Your task to perform on an android device: open a bookmark in the chrome app Image 0: 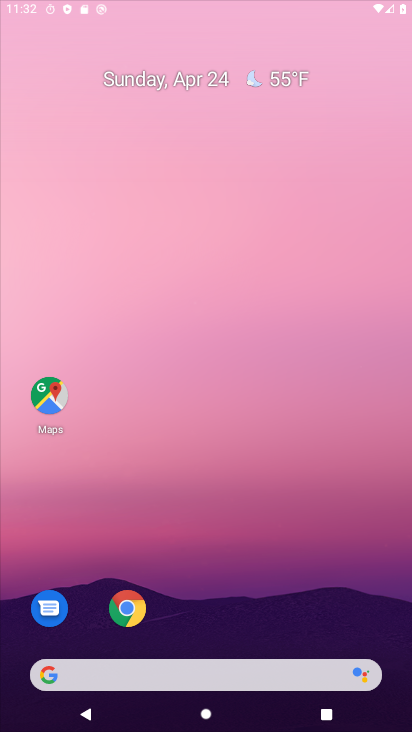
Step 0: click (246, 122)
Your task to perform on an android device: open a bookmark in the chrome app Image 1: 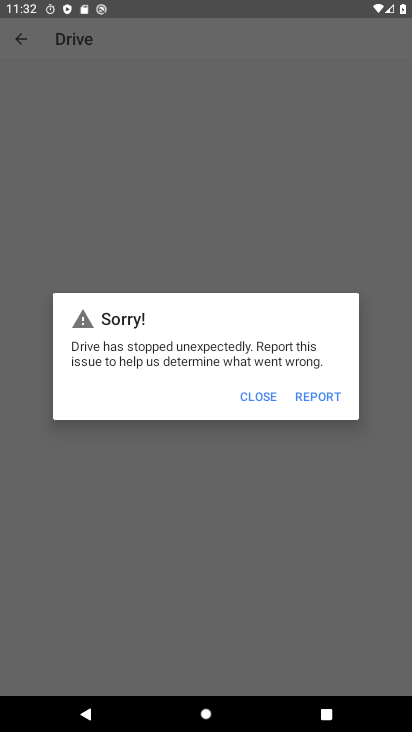
Step 1: press back button
Your task to perform on an android device: open a bookmark in the chrome app Image 2: 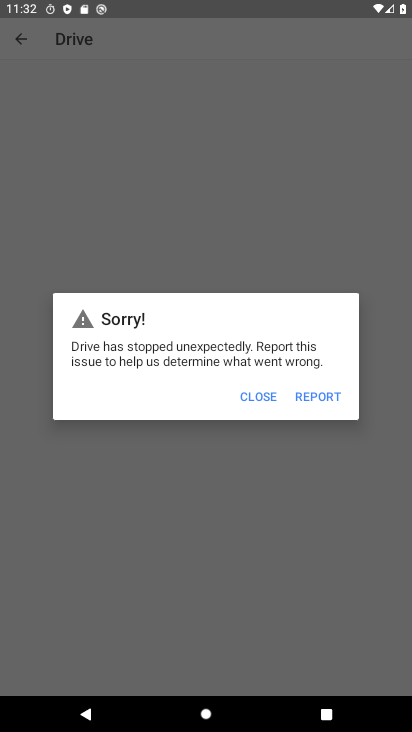
Step 2: click (261, 386)
Your task to perform on an android device: open a bookmark in the chrome app Image 3: 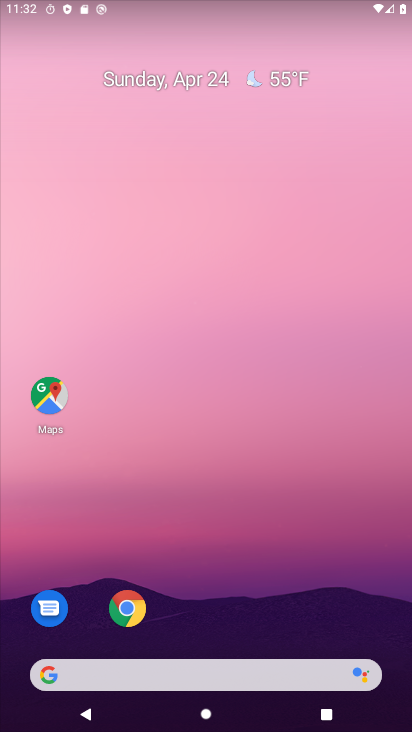
Step 3: click (114, 616)
Your task to perform on an android device: open a bookmark in the chrome app Image 4: 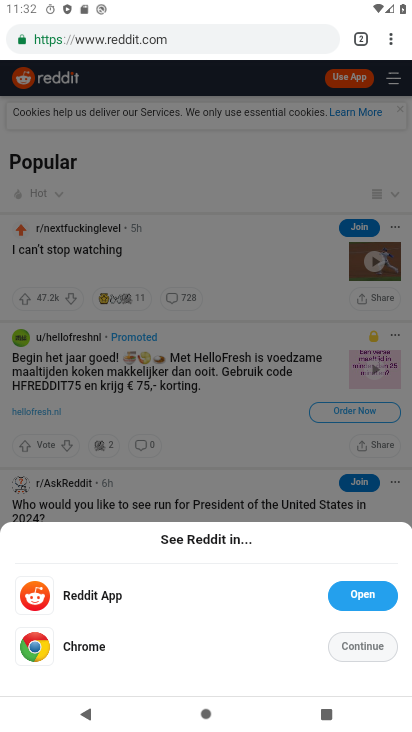
Step 4: drag from (390, 38) to (271, 198)
Your task to perform on an android device: open a bookmark in the chrome app Image 5: 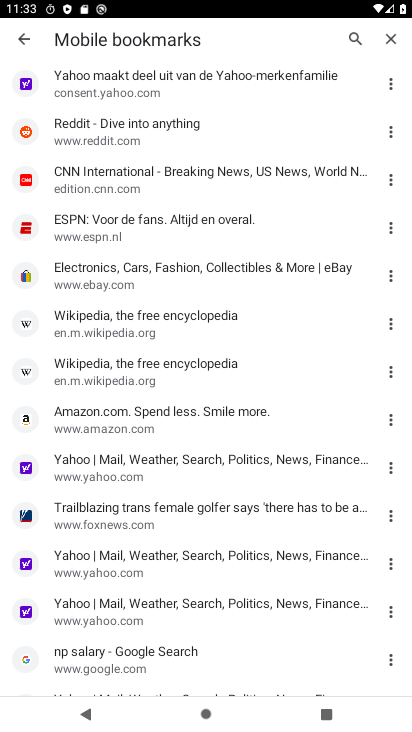
Step 5: click (81, 270)
Your task to perform on an android device: open a bookmark in the chrome app Image 6: 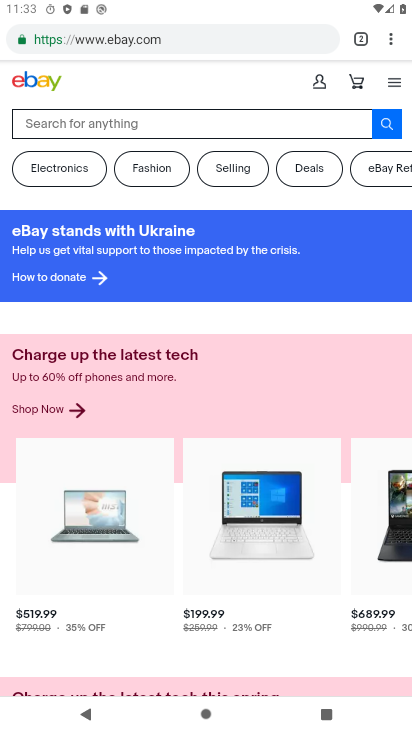
Step 6: task complete